Your task to perform on an android device: turn off smart reply in the gmail app Image 0: 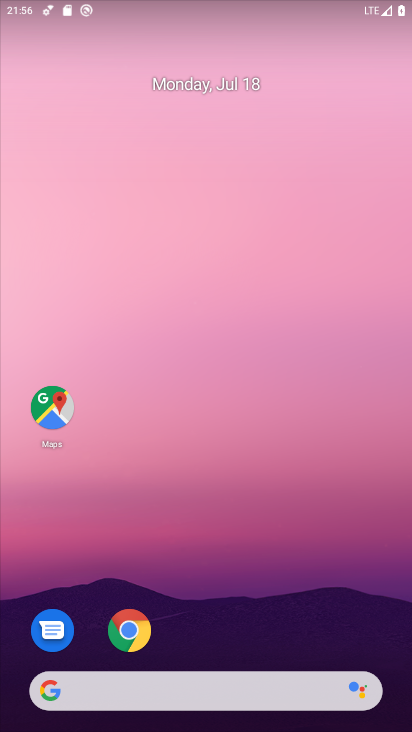
Step 0: drag from (313, 628) to (224, 165)
Your task to perform on an android device: turn off smart reply in the gmail app Image 1: 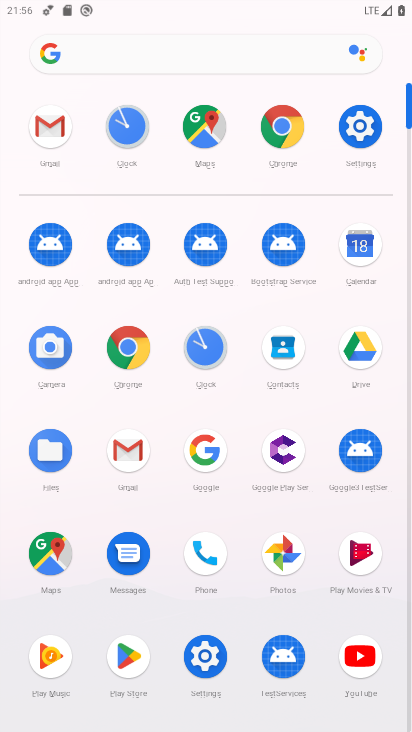
Step 1: click (141, 447)
Your task to perform on an android device: turn off smart reply in the gmail app Image 2: 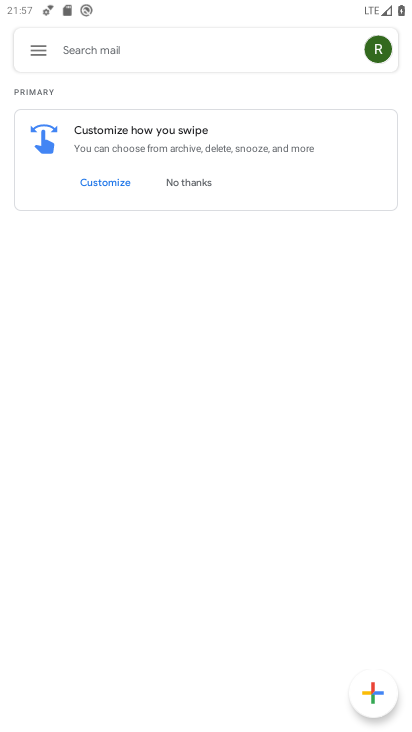
Step 2: click (43, 41)
Your task to perform on an android device: turn off smart reply in the gmail app Image 3: 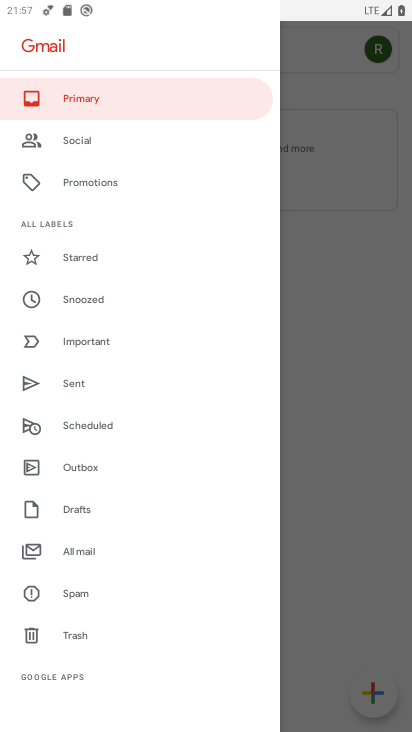
Step 3: drag from (124, 643) to (97, 231)
Your task to perform on an android device: turn off smart reply in the gmail app Image 4: 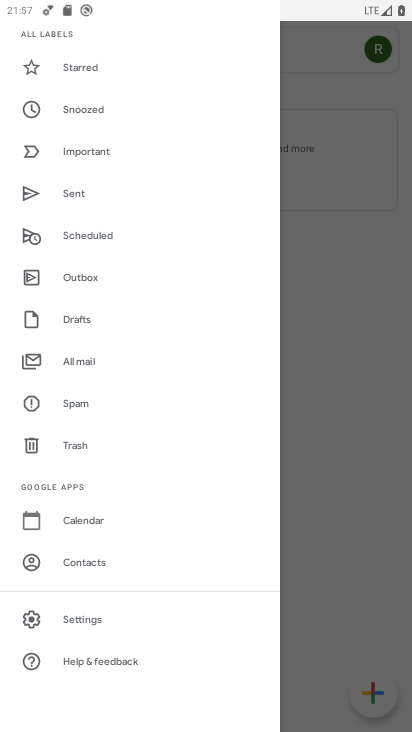
Step 4: click (98, 626)
Your task to perform on an android device: turn off smart reply in the gmail app Image 5: 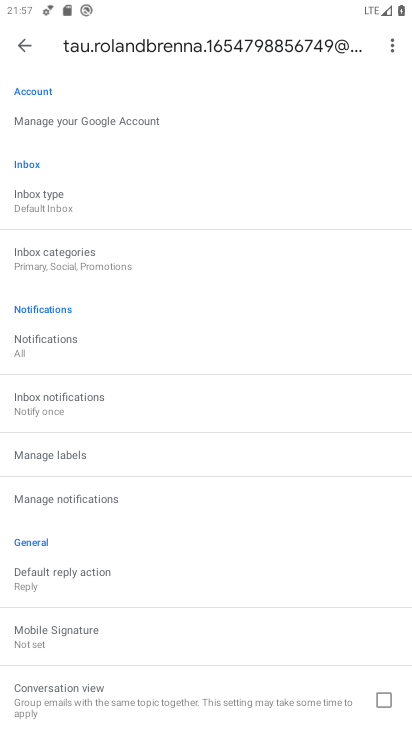
Step 5: drag from (190, 650) to (138, 179)
Your task to perform on an android device: turn off smart reply in the gmail app Image 6: 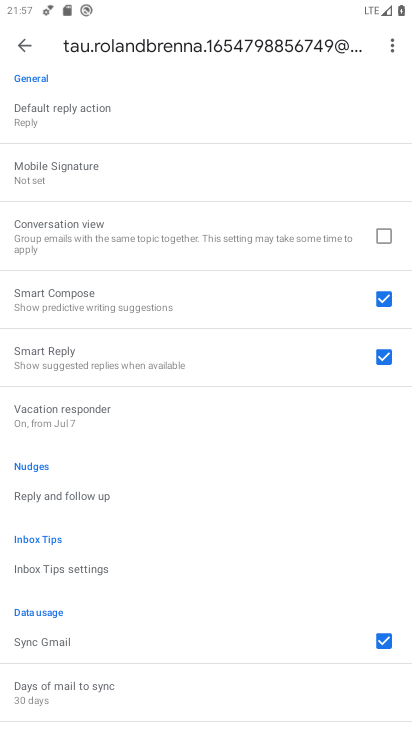
Step 6: drag from (208, 584) to (130, 157)
Your task to perform on an android device: turn off smart reply in the gmail app Image 7: 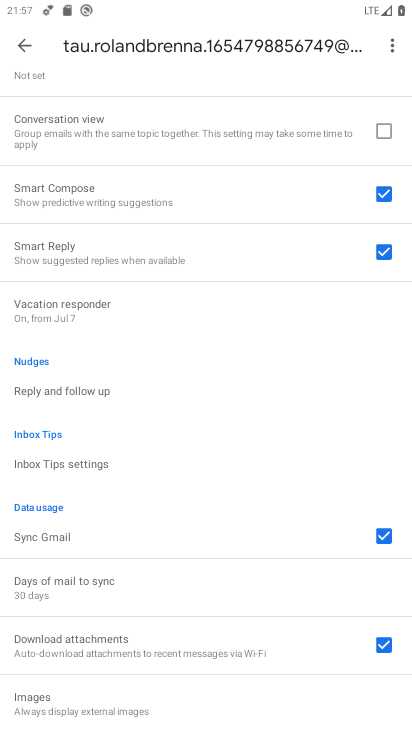
Step 7: click (17, 34)
Your task to perform on an android device: turn off smart reply in the gmail app Image 8: 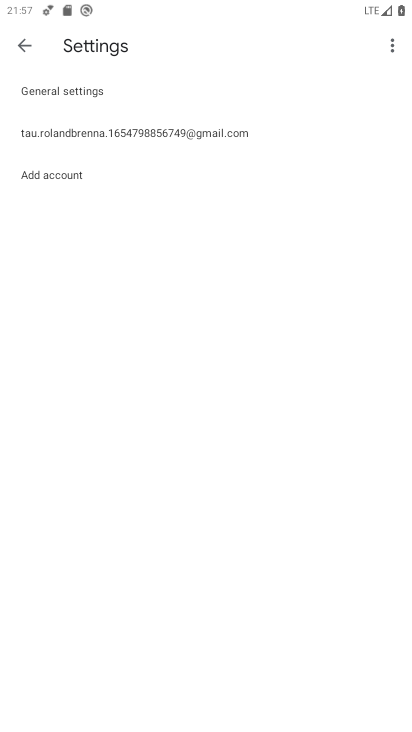
Step 8: click (74, 137)
Your task to perform on an android device: turn off smart reply in the gmail app Image 9: 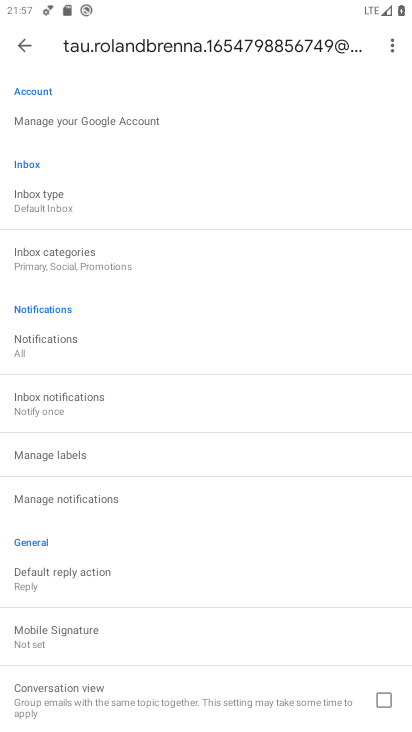
Step 9: drag from (159, 650) to (137, 226)
Your task to perform on an android device: turn off smart reply in the gmail app Image 10: 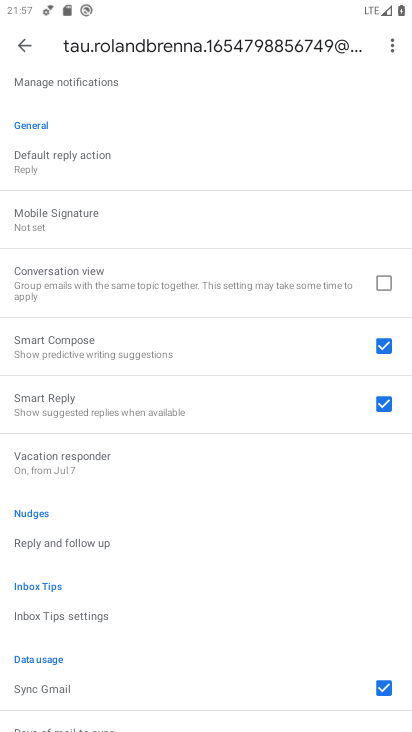
Step 10: drag from (224, 625) to (201, 254)
Your task to perform on an android device: turn off smart reply in the gmail app Image 11: 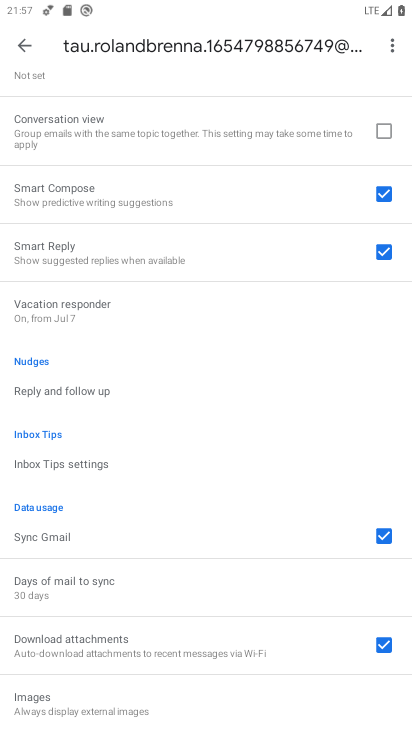
Step 11: click (383, 259)
Your task to perform on an android device: turn off smart reply in the gmail app Image 12: 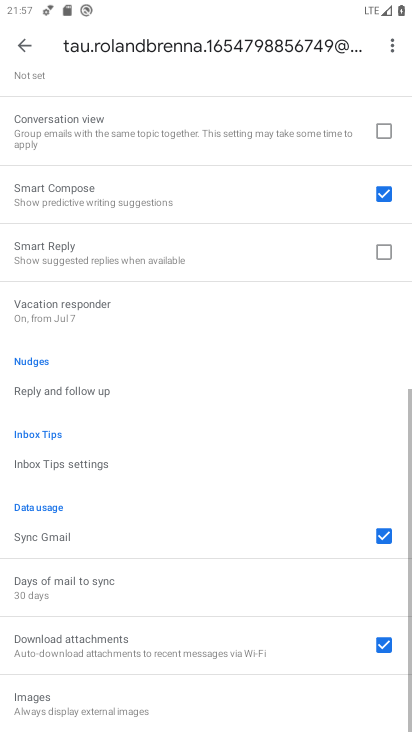
Step 12: task complete